Your task to perform on an android device: Turn off the flashlight Image 0: 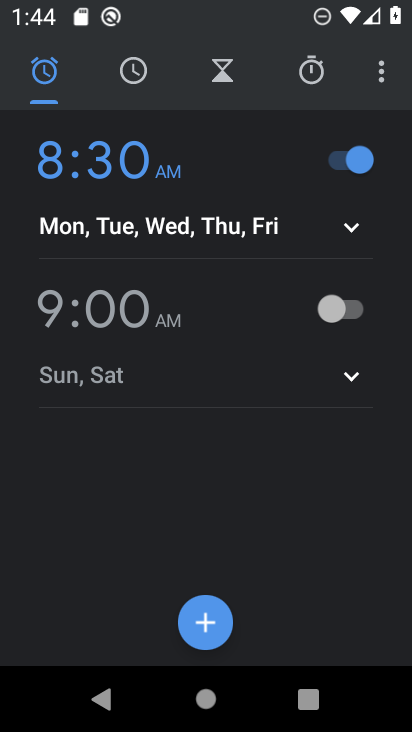
Step 0: press home button
Your task to perform on an android device: Turn off the flashlight Image 1: 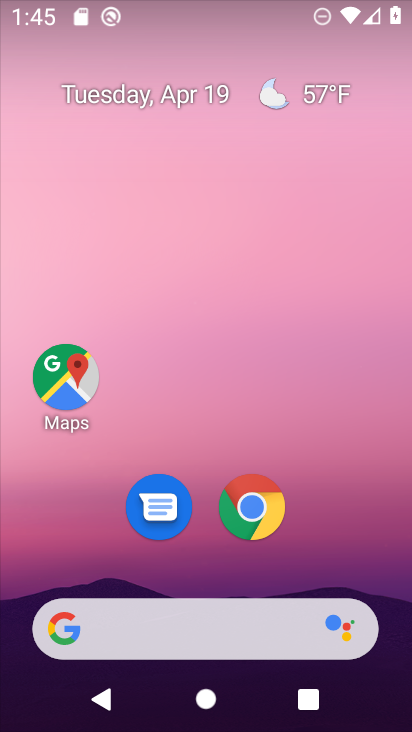
Step 1: drag from (306, 524) to (298, 6)
Your task to perform on an android device: Turn off the flashlight Image 2: 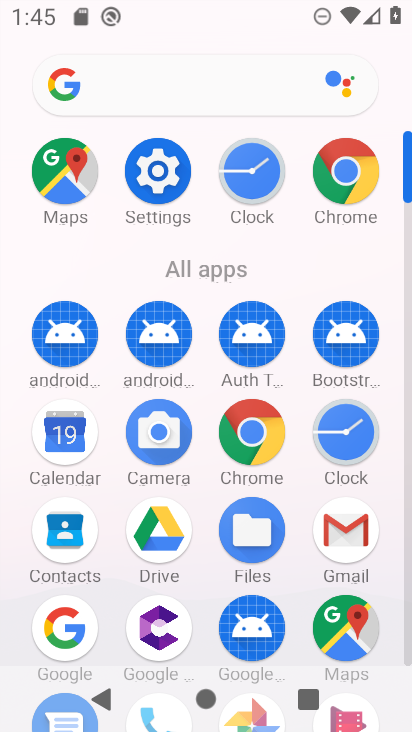
Step 2: click (180, 201)
Your task to perform on an android device: Turn off the flashlight Image 3: 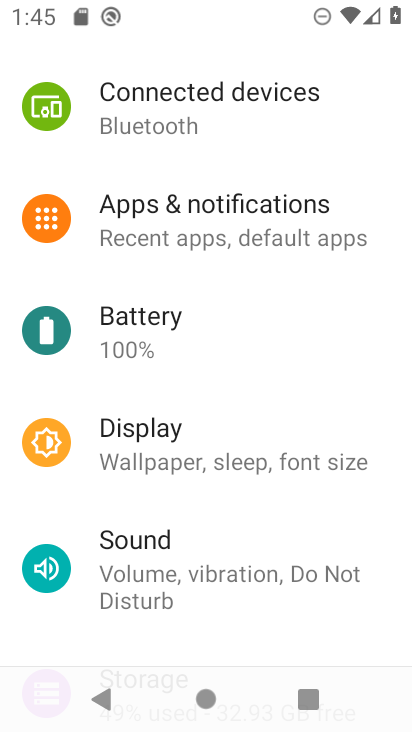
Step 3: task complete